Your task to perform on an android device: star an email in the gmail app Image 0: 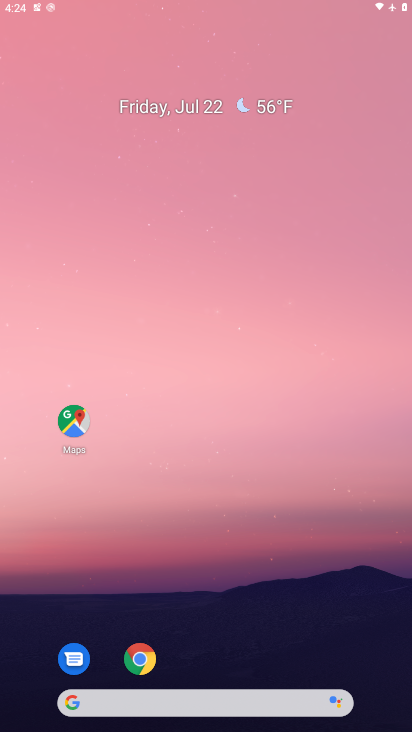
Step 0: click (314, 118)
Your task to perform on an android device: star an email in the gmail app Image 1: 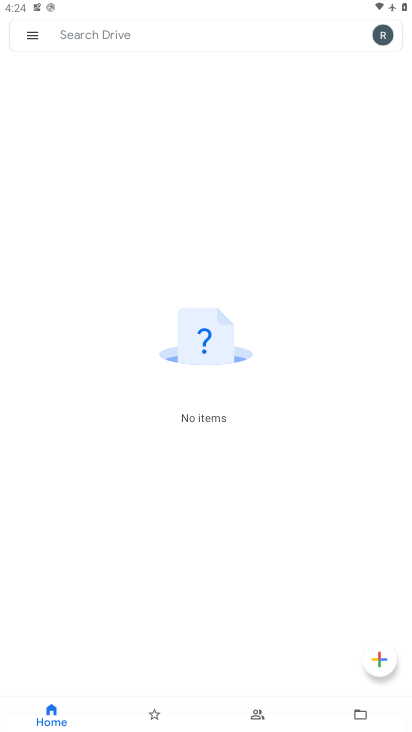
Step 1: press home button
Your task to perform on an android device: star an email in the gmail app Image 2: 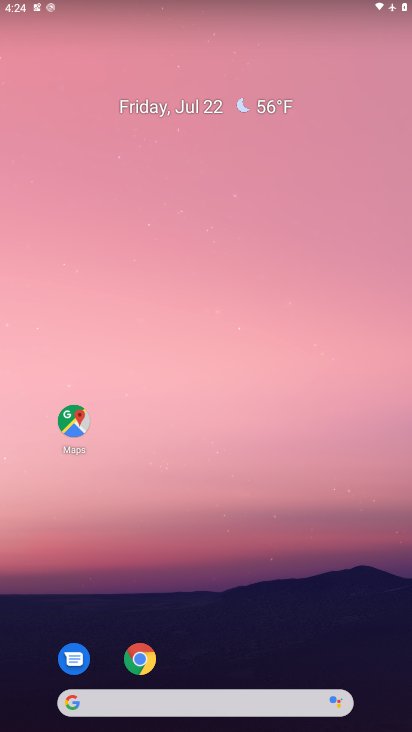
Step 2: drag from (222, 656) to (266, 288)
Your task to perform on an android device: star an email in the gmail app Image 3: 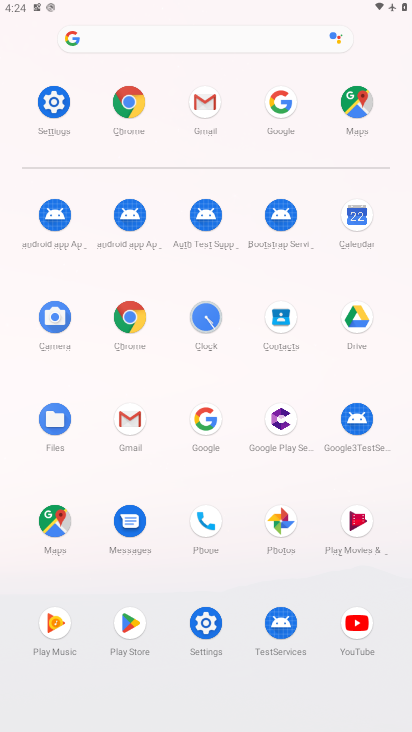
Step 3: click (141, 421)
Your task to perform on an android device: star an email in the gmail app Image 4: 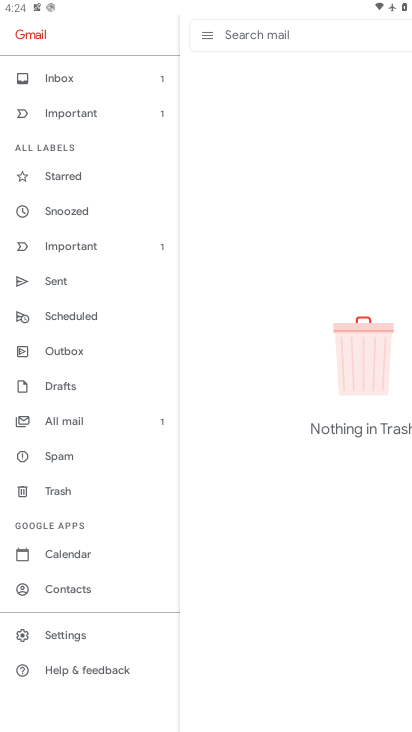
Step 4: click (93, 71)
Your task to perform on an android device: star an email in the gmail app Image 5: 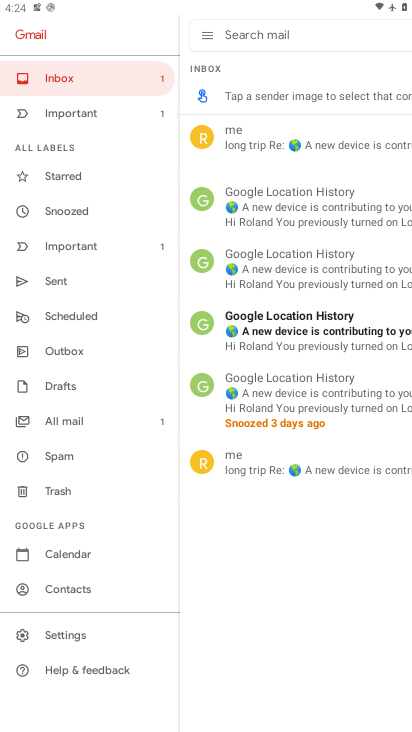
Step 5: click (307, 200)
Your task to perform on an android device: star an email in the gmail app Image 6: 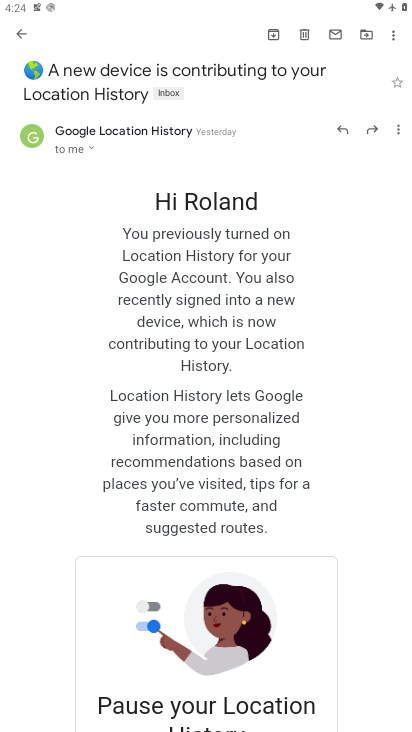
Step 6: click (396, 82)
Your task to perform on an android device: star an email in the gmail app Image 7: 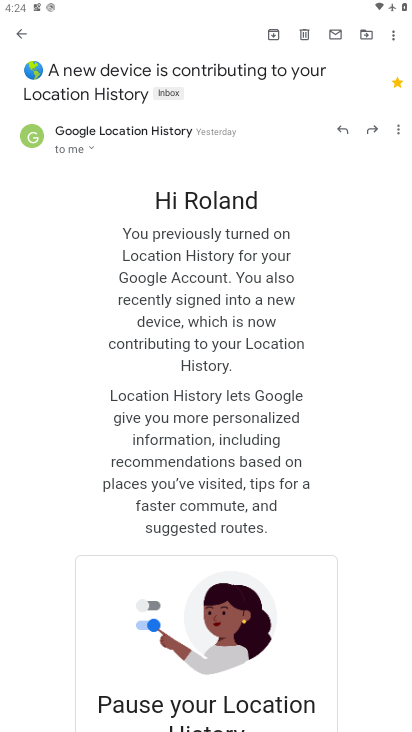
Step 7: task complete